Your task to perform on an android device: Open privacy settings Image 0: 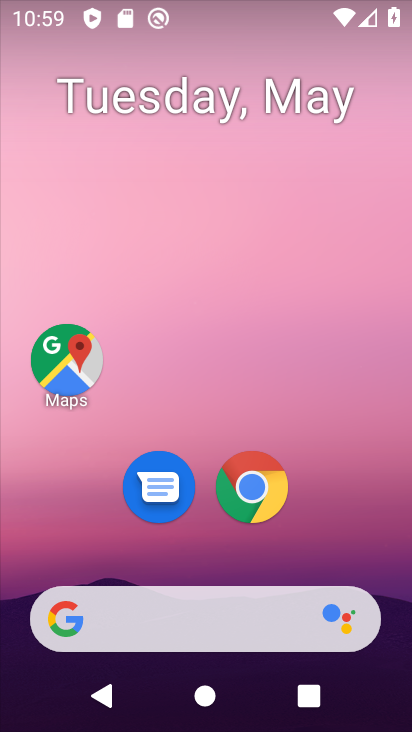
Step 0: click (277, 500)
Your task to perform on an android device: Open privacy settings Image 1: 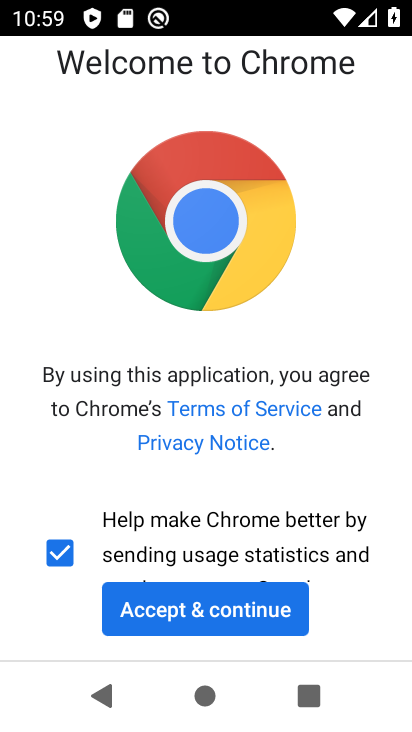
Step 1: click (239, 620)
Your task to perform on an android device: Open privacy settings Image 2: 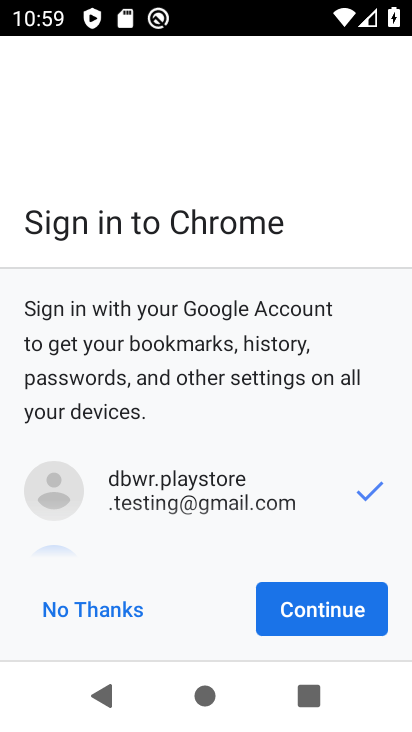
Step 2: click (313, 605)
Your task to perform on an android device: Open privacy settings Image 3: 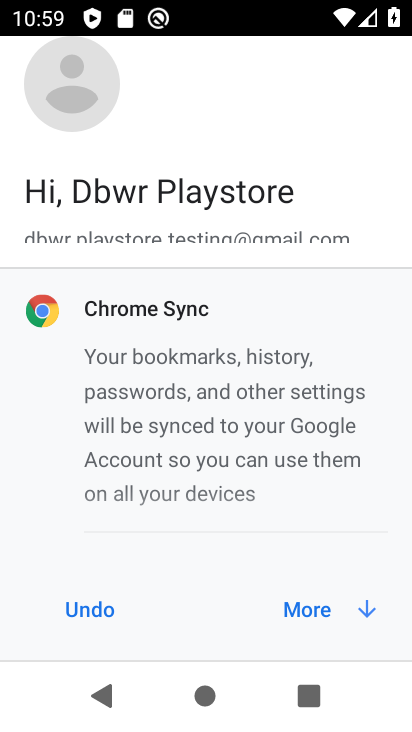
Step 3: click (309, 611)
Your task to perform on an android device: Open privacy settings Image 4: 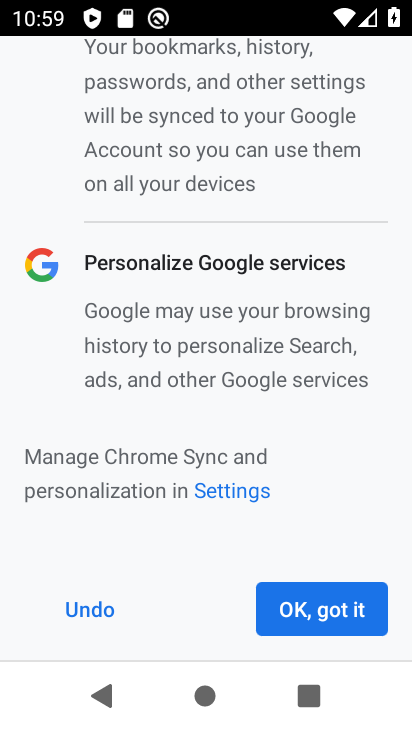
Step 4: click (309, 611)
Your task to perform on an android device: Open privacy settings Image 5: 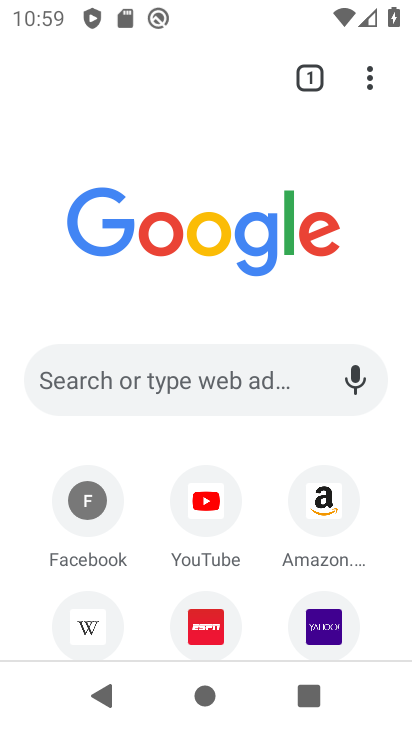
Step 5: drag from (395, 77) to (234, 570)
Your task to perform on an android device: Open privacy settings Image 6: 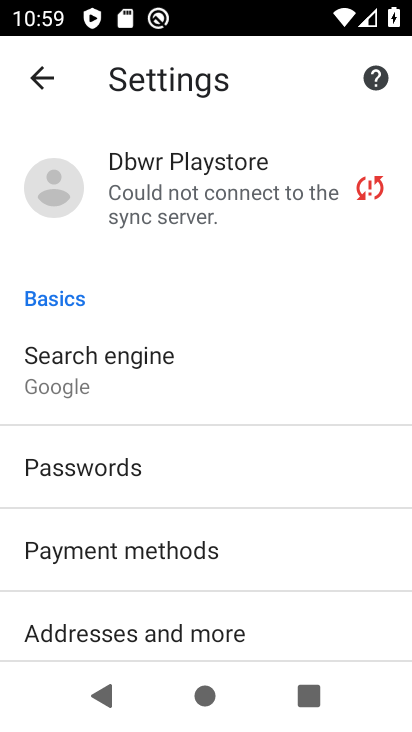
Step 6: drag from (189, 592) to (314, 167)
Your task to perform on an android device: Open privacy settings Image 7: 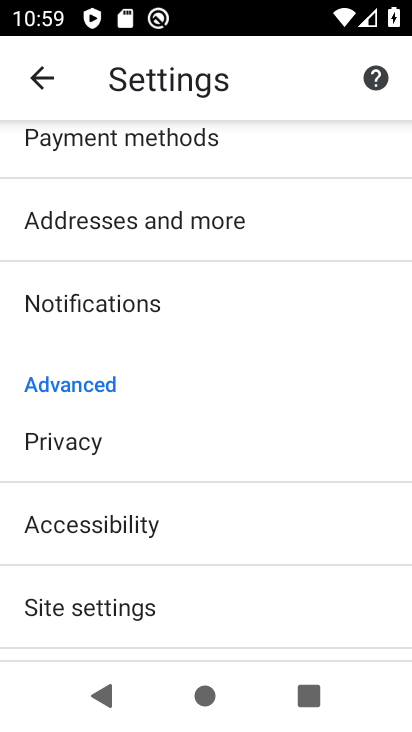
Step 7: click (113, 459)
Your task to perform on an android device: Open privacy settings Image 8: 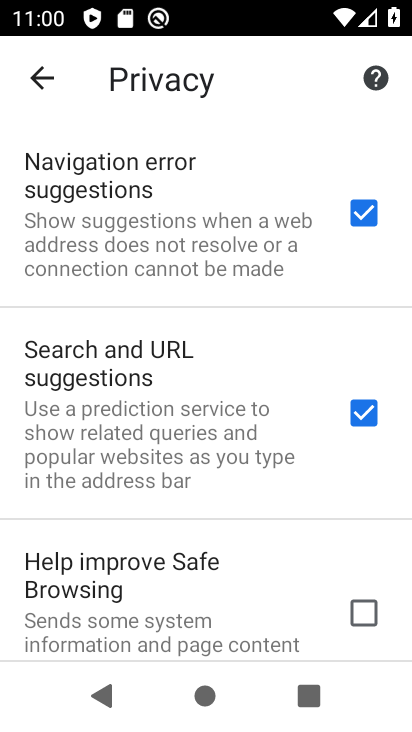
Step 8: task complete